Your task to perform on an android device: turn pop-ups off in chrome Image 0: 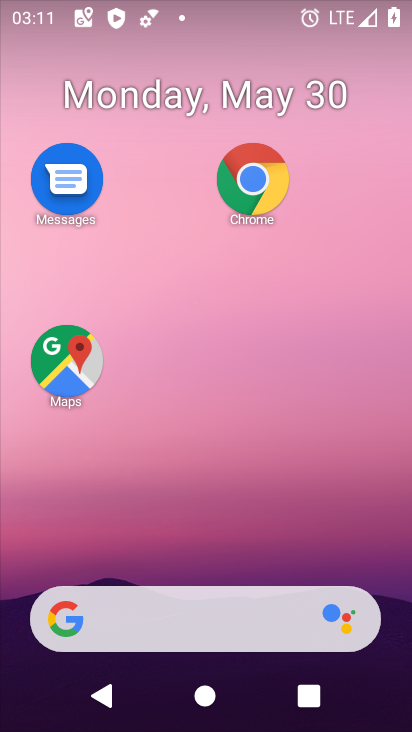
Step 0: click (257, 175)
Your task to perform on an android device: turn pop-ups off in chrome Image 1: 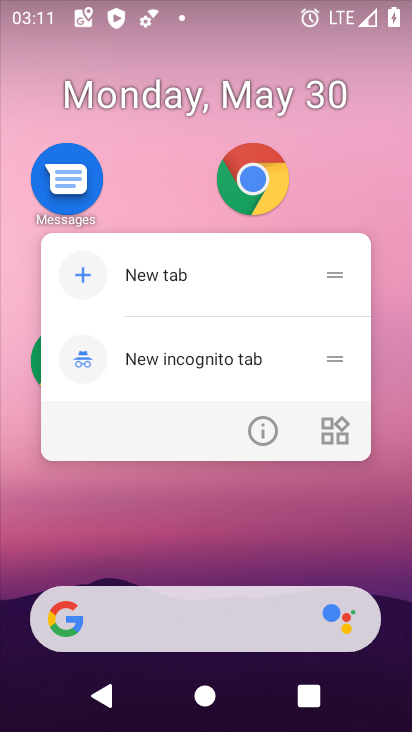
Step 1: click (256, 181)
Your task to perform on an android device: turn pop-ups off in chrome Image 2: 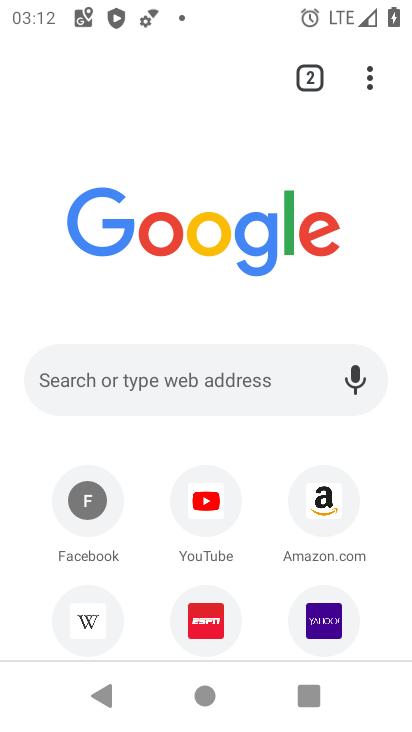
Step 2: click (374, 86)
Your task to perform on an android device: turn pop-ups off in chrome Image 3: 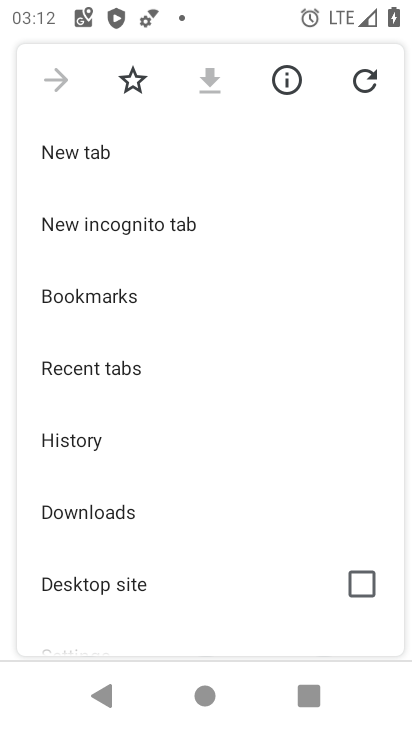
Step 3: drag from (145, 581) to (215, 341)
Your task to perform on an android device: turn pop-ups off in chrome Image 4: 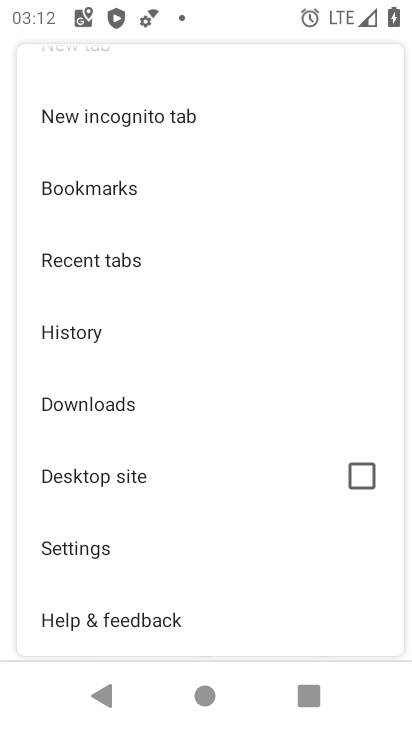
Step 4: click (101, 557)
Your task to perform on an android device: turn pop-ups off in chrome Image 5: 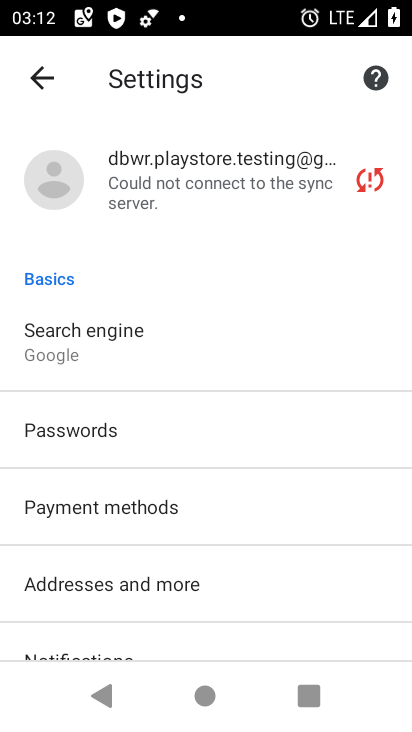
Step 5: drag from (142, 549) to (237, 87)
Your task to perform on an android device: turn pop-ups off in chrome Image 6: 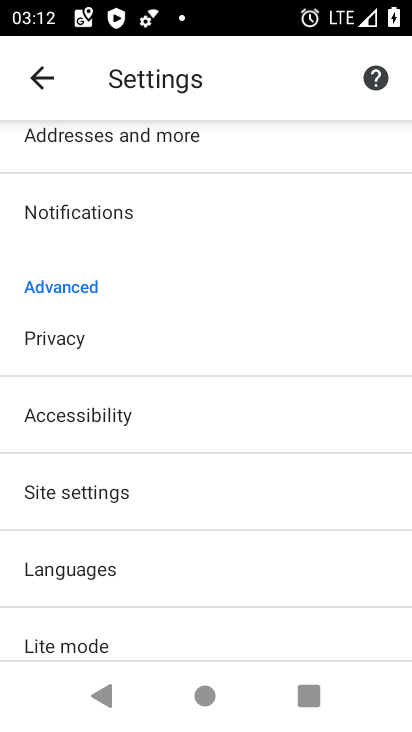
Step 6: drag from (157, 572) to (172, 160)
Your task to perform on an android device: turn pop-ups off in chrome Image 7: 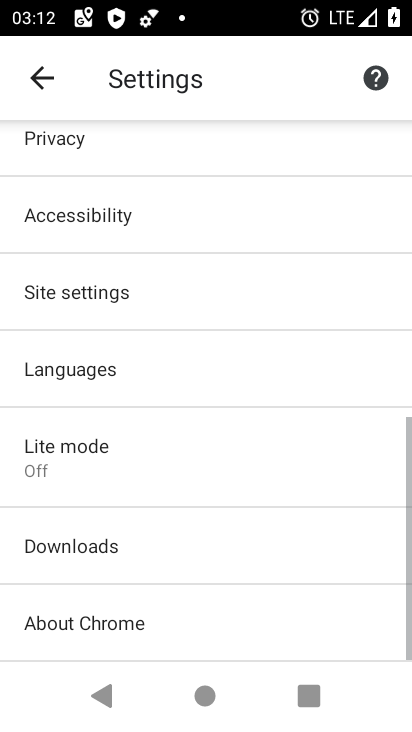
Step 7: drag from (97, 585) to (174, 202)
Your task to perform on an android device: turn pop-ups off in chrome Image 8: 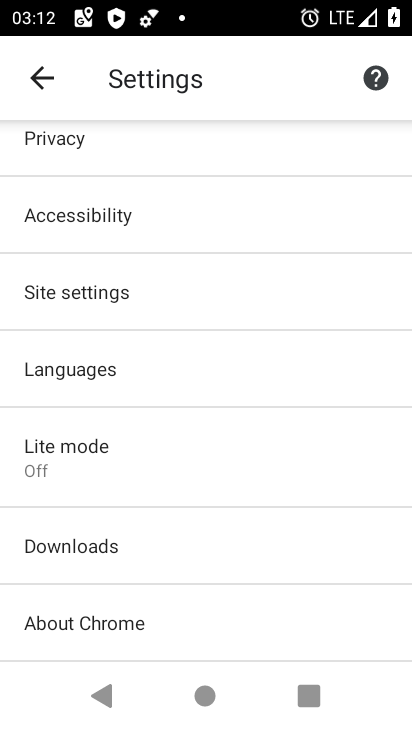
Step 8: drag from (167, 587) to (209, 132)
Your task to perform on an android device: turn pop-ups off in chrome Image 9: 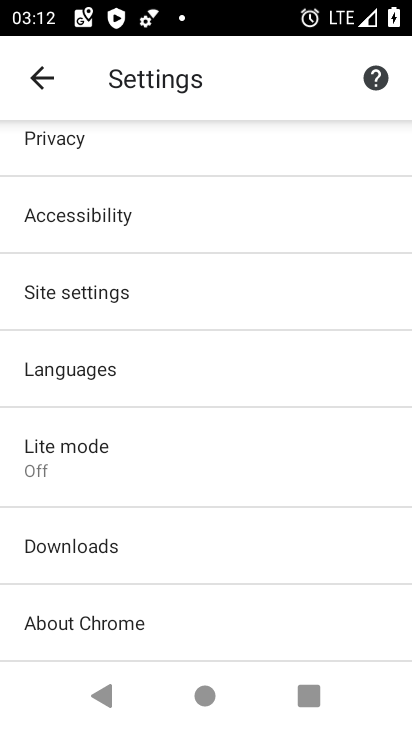
Step 9: click (107, 303)
Your task to perform on an android device: turn pop-ups off in chrome Image 10: 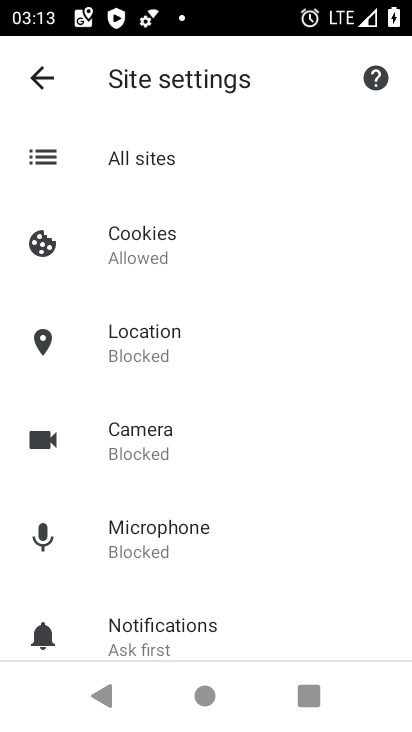
Step 10: drag from (171, 623) to (208, 373)
Your task to perform on an android device: turn pop-ups off in chrome Image 11: 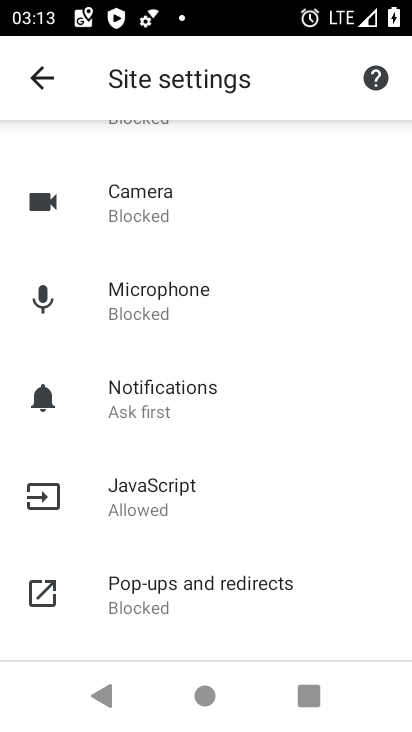
Step 11: drag from (211, 541) to (233, 298)
Your task to perform on an android device: turn pop-ups off in chrome Image 12: 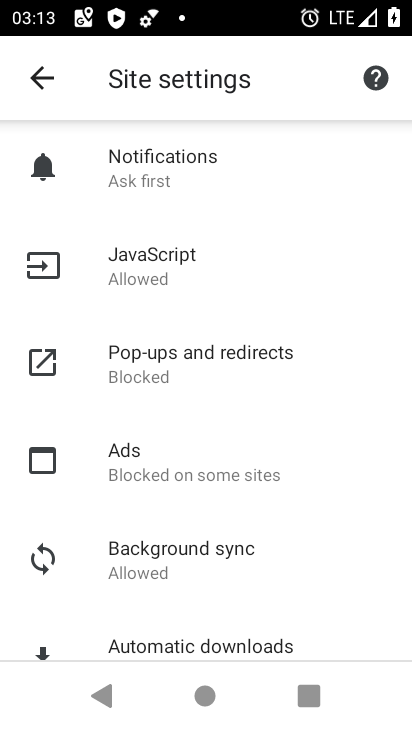
Step 12: drag from (186, 595) to (272, 243)
Your task to perform on an android device: turn pop-ups off in chrome Image 13: 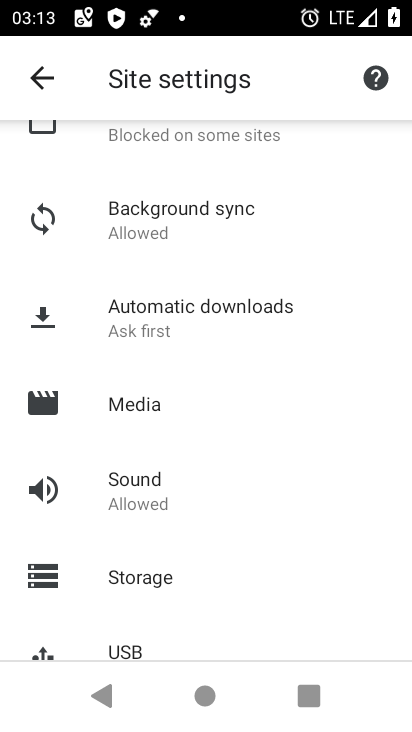
Step 13: drag from (189, 544) to (239, 207)
Your task to perform on an android device: turn pop-ups off in chrome Image 14: 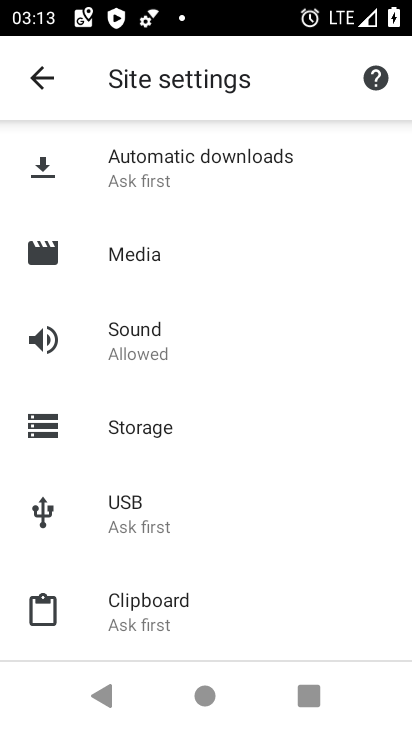
Step 14: press home button
Your task to perform on an android device: turn pop-ups off in chrome Image 15: 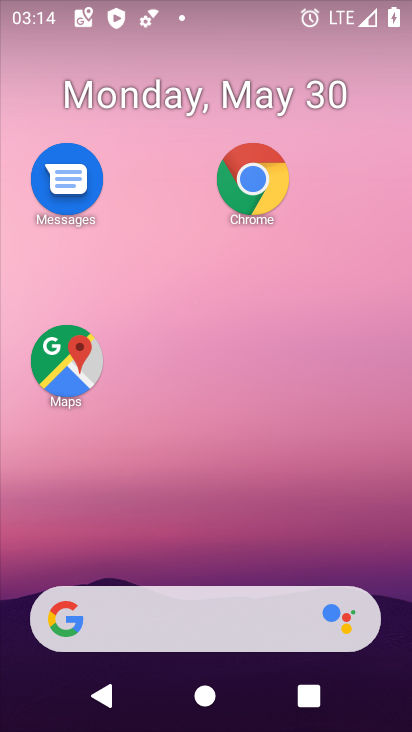
Step 15: click (249, 179)
Your task to perform on an android device: turn pop-ups off in chrome Image 16: 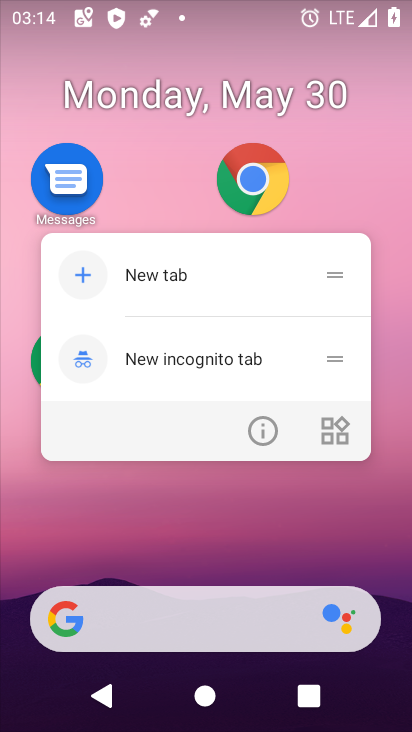
Step 16: click (247, 179)
Your task to perform on an android device: turn pop-ups off in chrome Image 17: 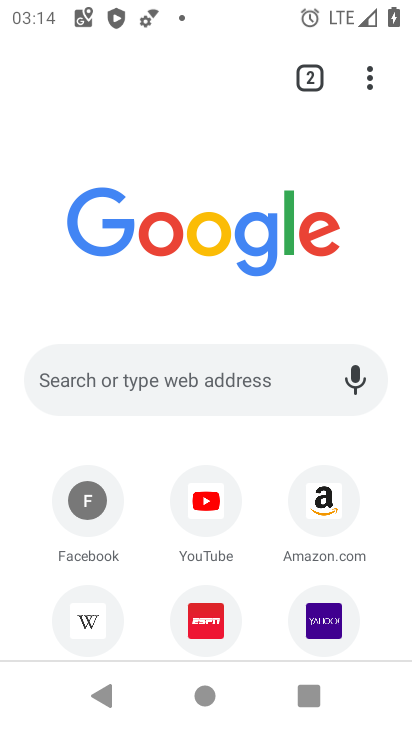
Step 17: click (369, 87)
Your task to perform on an android device: turn pop-ups off in chrome Image 18: 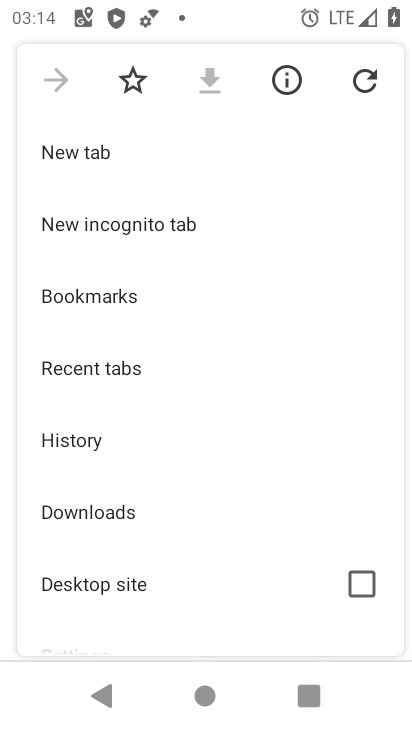
Step 18: drag from (102, 578) to (140, 209)
Your task to perform on an android device: turn pop-ups off in chrome Image 19: 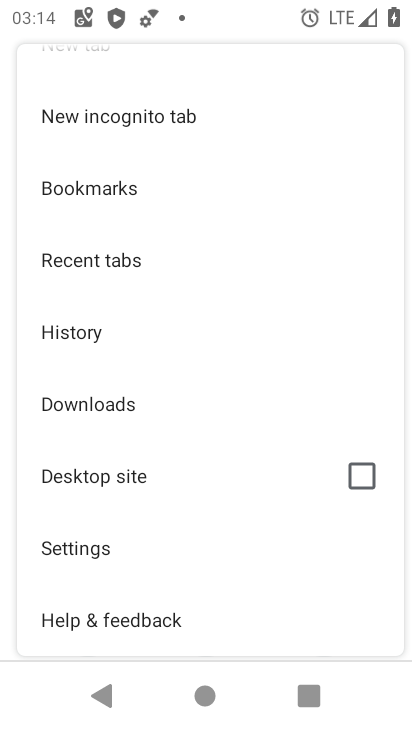
Step 19: click (82, 555)
Your task to perform on an android device: turn pop-ups off in chrome Image 20: 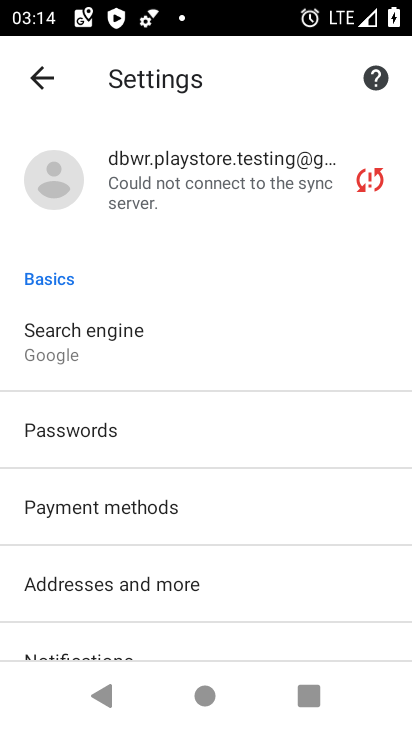
Step 20: drag from (106, 593) to (140, 244)
Your task to perform on an android device: turn pop-ups off in chrome Image 21: 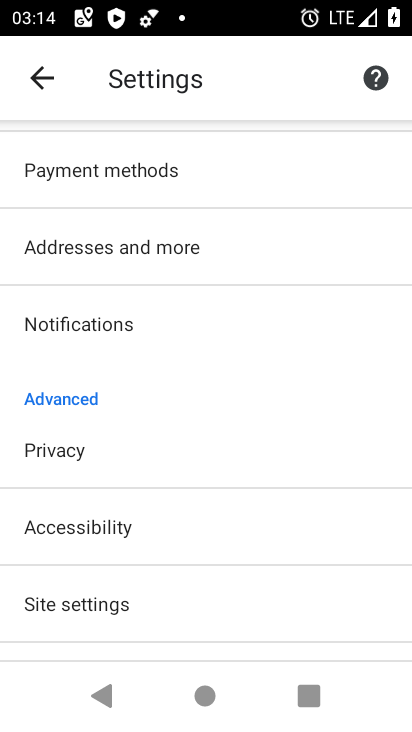
Step 21: click (104, 610)
Your task to perform on an android device: turn pop-ups off in chrome Image 22: 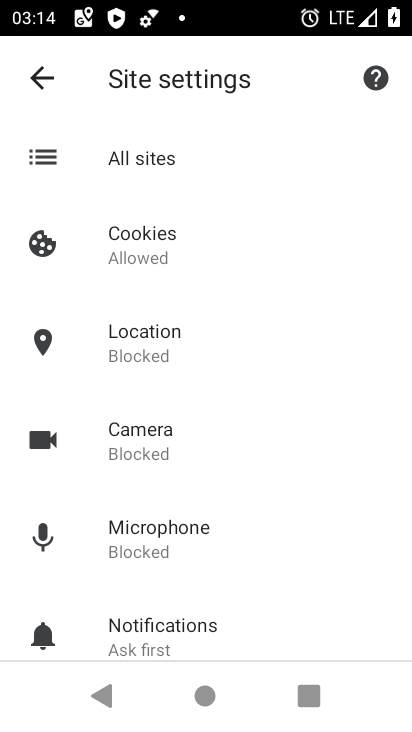
Step 22: drag from (154, 571) to (183, 162)
Your task to perform on an android device: turn pop-ups off in chrome Image 23: 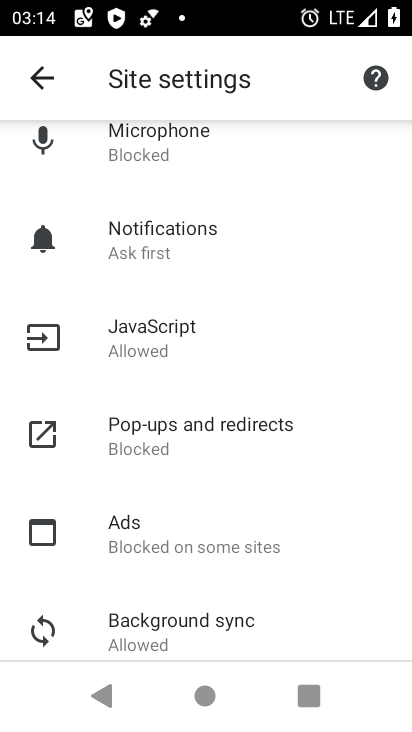
Step 23: click (189, 439)
Your task to perform on an android device: turn pop-ups off in chrome Image 24: 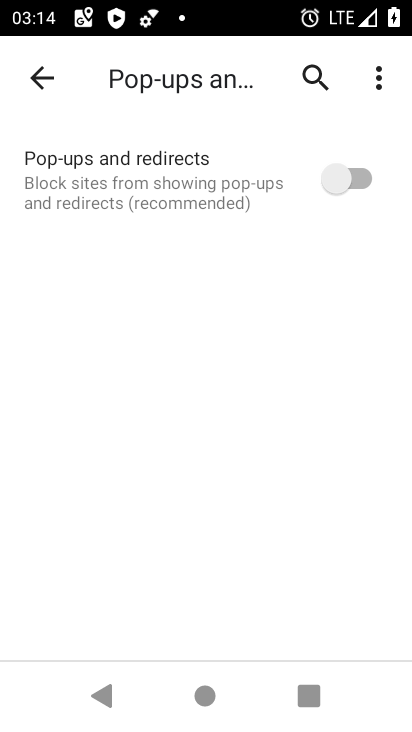
Step 24: task complete